Your task to perform on an android device: add a label to a message in the gmail app Image 0: 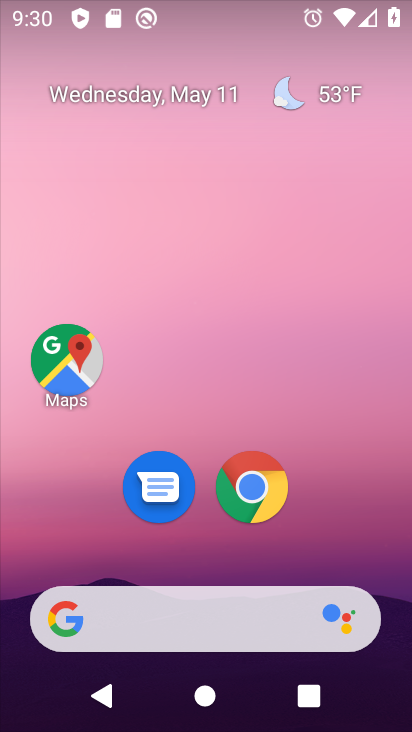
Step 0: drag from (213, 541) to (225, 280)
Your task to perform on an android device: add a label to a message in the gmail app Image 1: 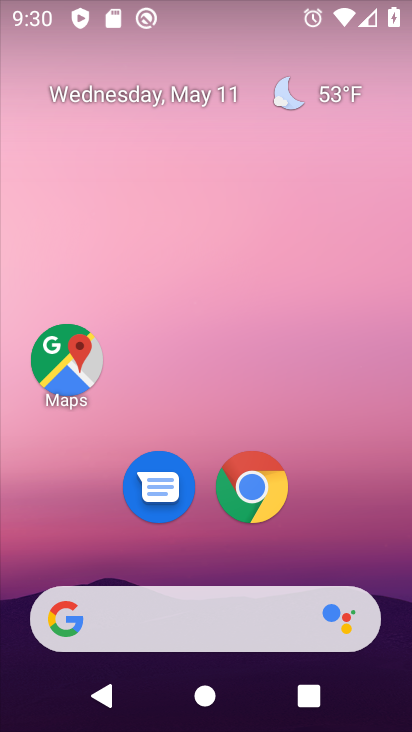
Step 1: drag from (185, 570) to (174, 212)
Your task to perform on an android device: add a label to a message in the gmail app Image 2: 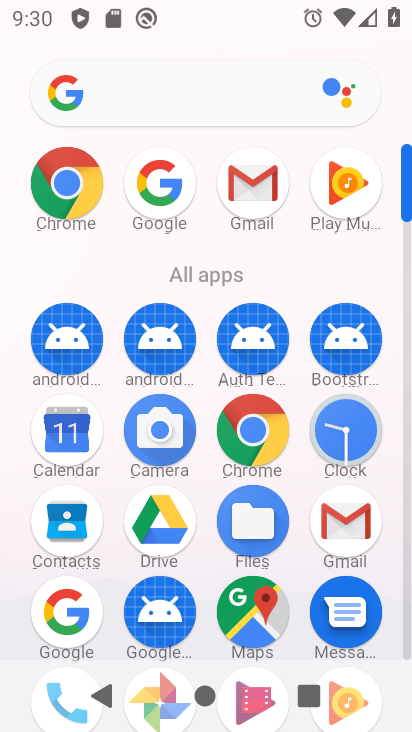
Step 2: click (226, 210)
Your task to perform on an android device: add a label to a message in the gmail app Image 3: 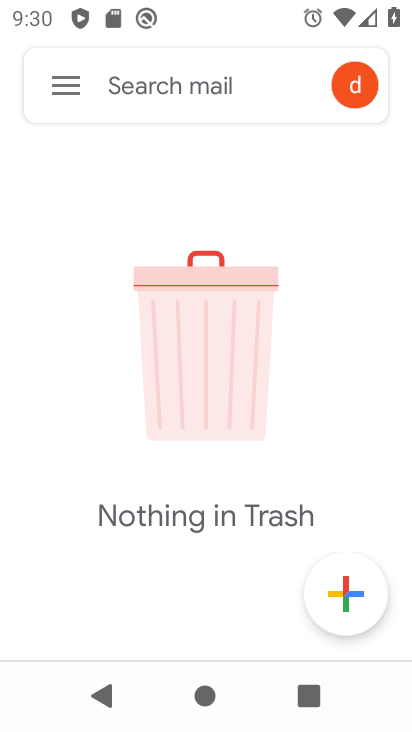
Step 3: click (58, 93)
Your task to perform on an android device: add a label to a message in the gmail app Image 4: 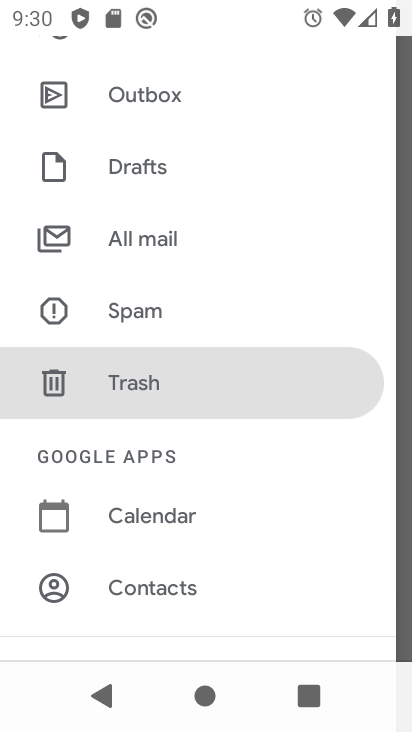
Step 4: click (126, 240)
Your task to perform on an android device: add a label to a message in the gmail app Image 5: 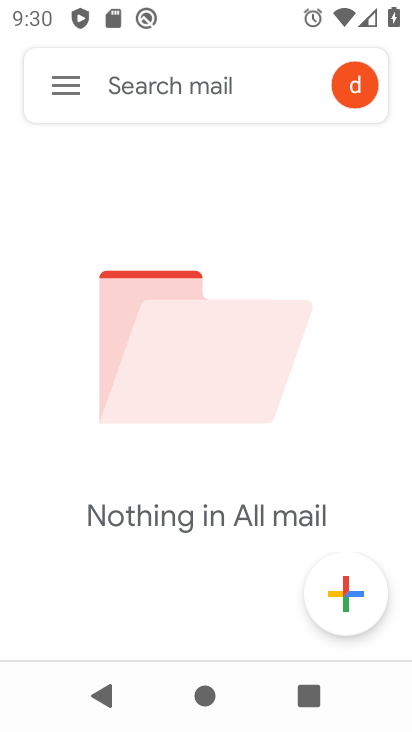
Step 5: task complete